Your task to perform on an android device: Add sony triple a to the cart on newegg, then select checkout. Image 0: 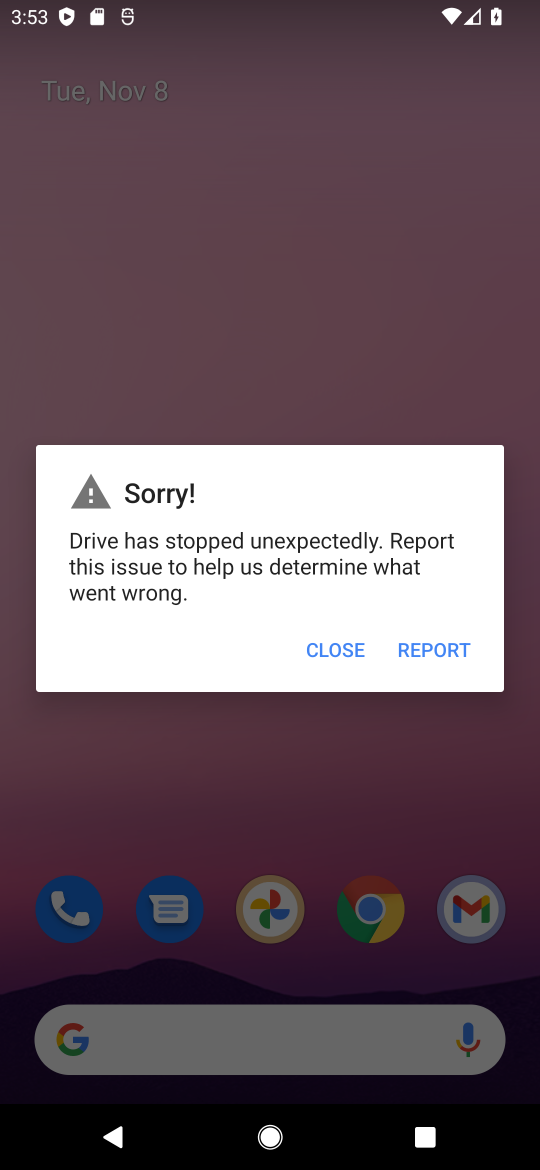
Step 0: press home button
Your task to perform on an android device: Add sony triple a to the cart on newegg, then select checkout. Image 1: 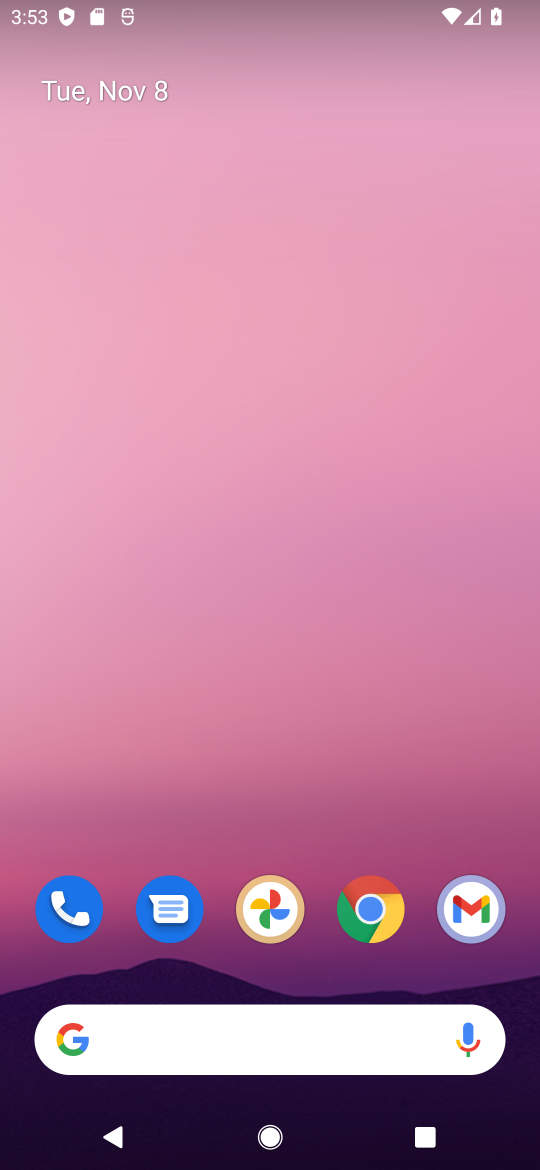
Step 1: click (378, 908)
Your task to perform on an android device: Add sony triple a to the cart on newegg, then select checkout. Image 2: 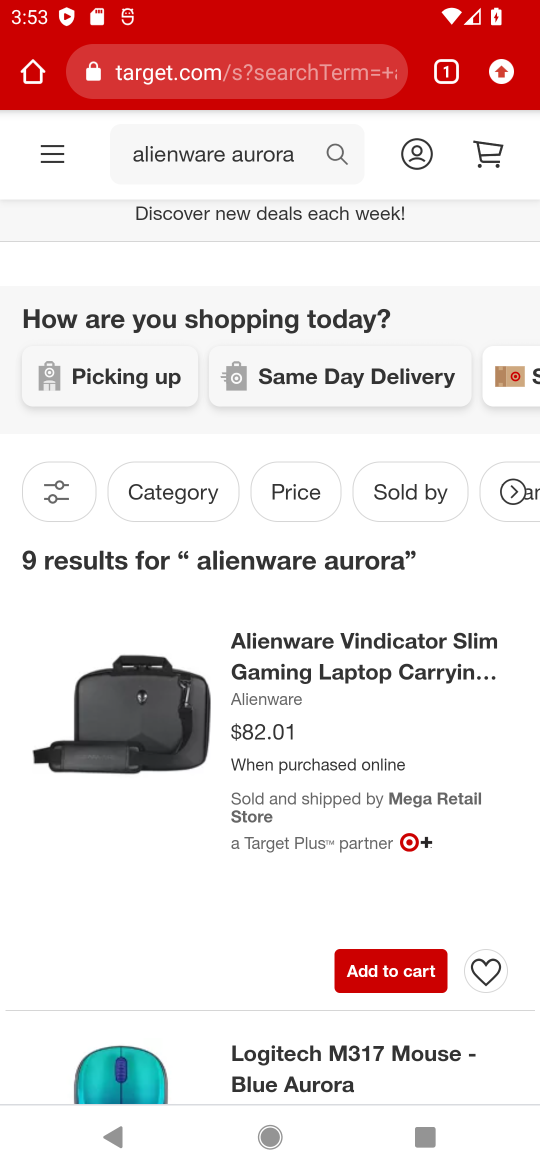
Step 2: click (264, 79)
Your task to perform on an android device: Add sony triple a to the cart on newegg, then select checkout. Image 3: 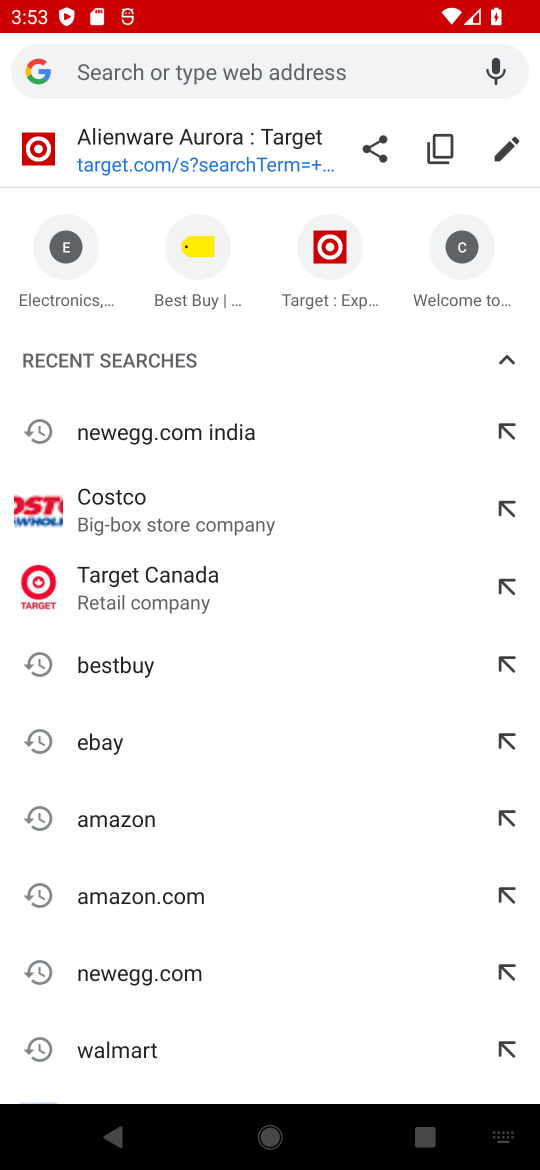
Step 3: click (131, 433)
Your task to perform on an android device: Add sony triple a to the cart on newegg, then select checkout. Image 4: 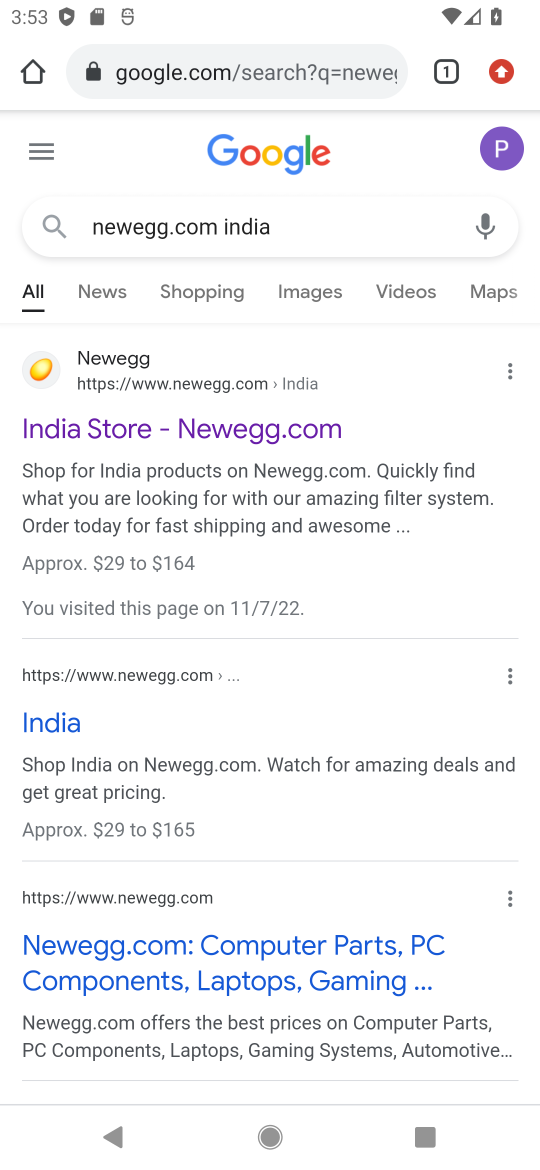
Step 4: click (210, 430)
Your task to perform on an android device: Add sony triple a to the cart on newegg, then select checkout. Image 5: 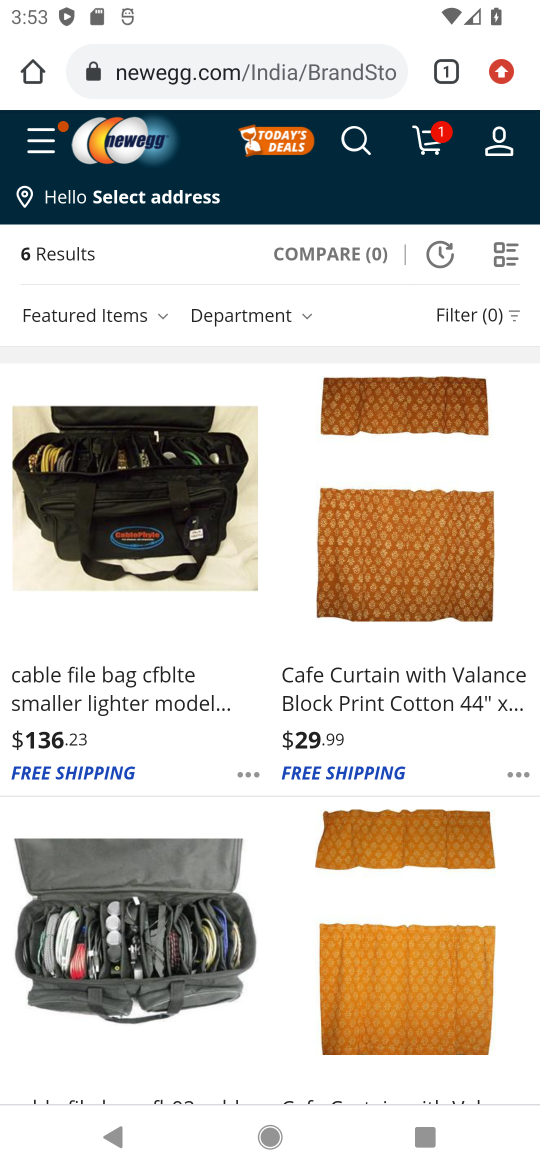
Step 5: click (347, 128)
Your task to perform on an android device: Add sony triple a to the cart on newegg, then select checkout. Image 6: 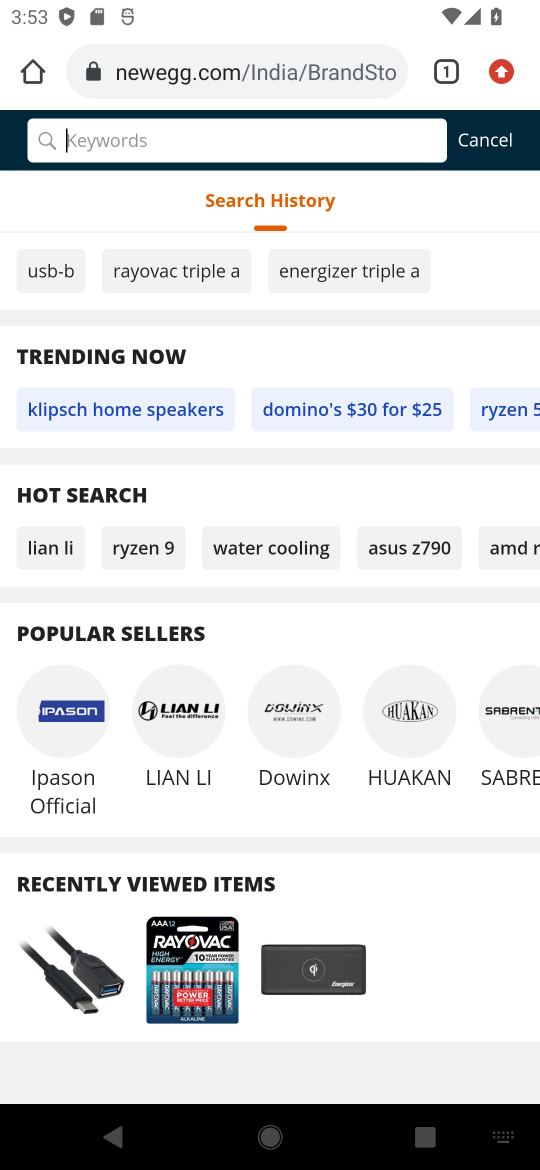
Step 6: type "sony triple a"
Your task to perform on an android device: Add sony triple a to the cart on newegg, then select checkout. Image 7: 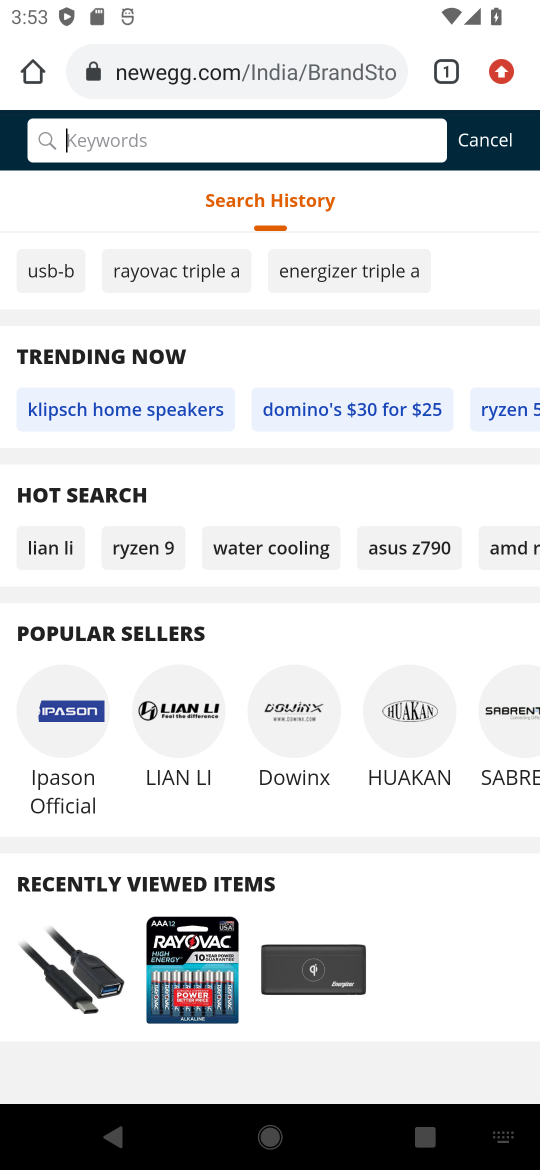
Step 7: press enter
Your task to perform on an android device: Add sony triple a to the cart on newegg, then select checkout. Image 8: 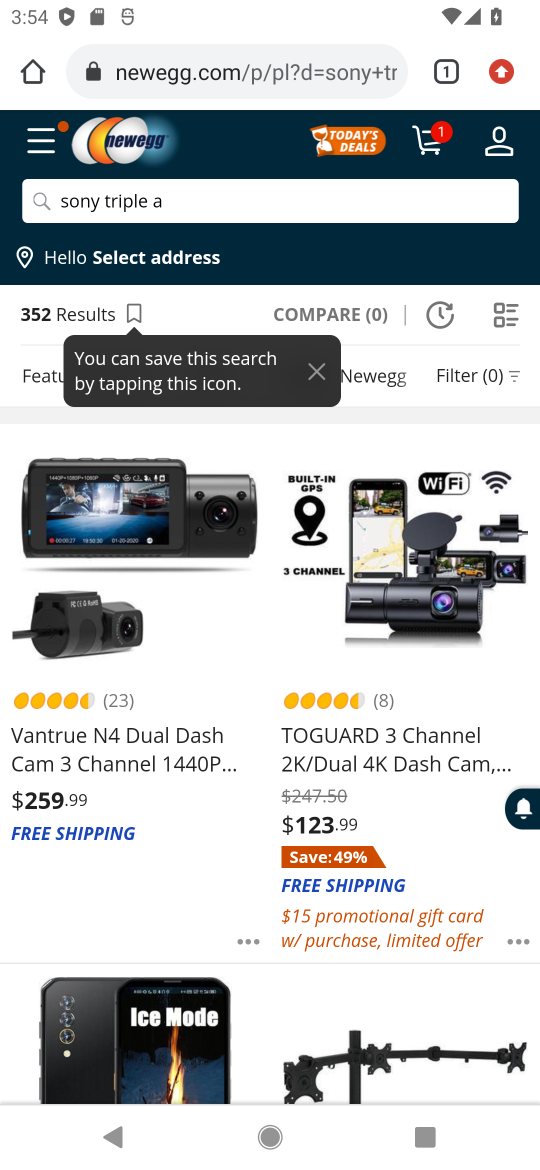
Step 8: task complete